Your task to perform on an android device: Open the web browser Image 0: 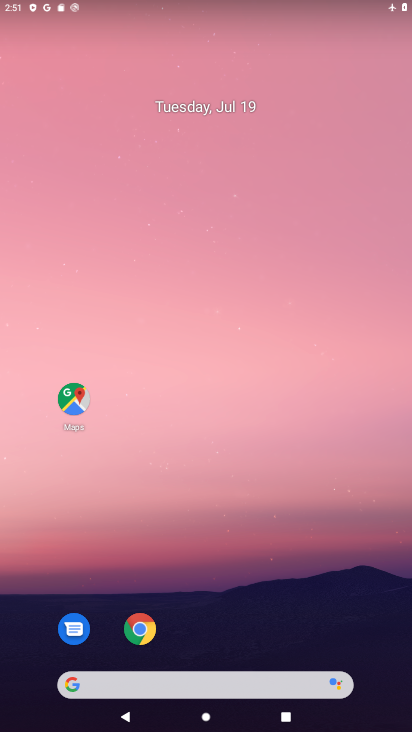
Step 0: click (145, 620)
Your task to perform on an android device: Open the web browser Image 1: 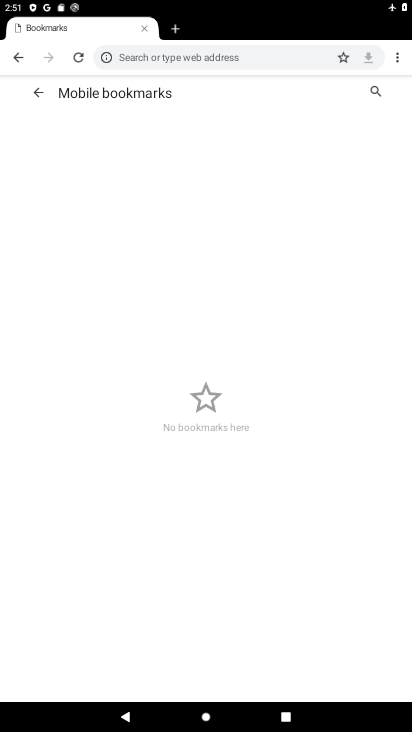
Step 1: task complete